Your task to perform on an android device: Open Amazon Image 0: 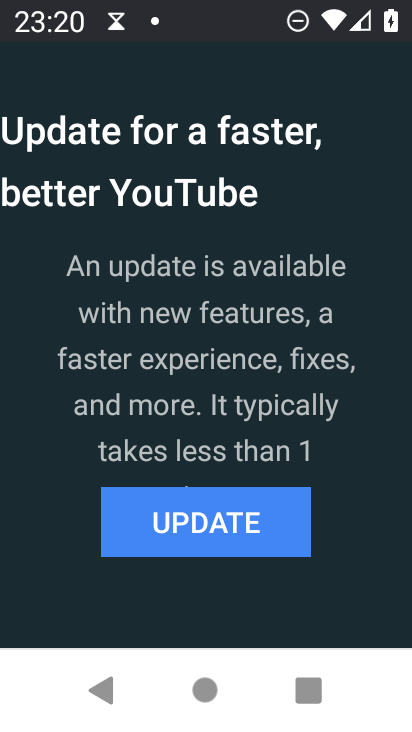
Step 0: press home button
Your task to perform on an android device: Open Amazon Image 1: 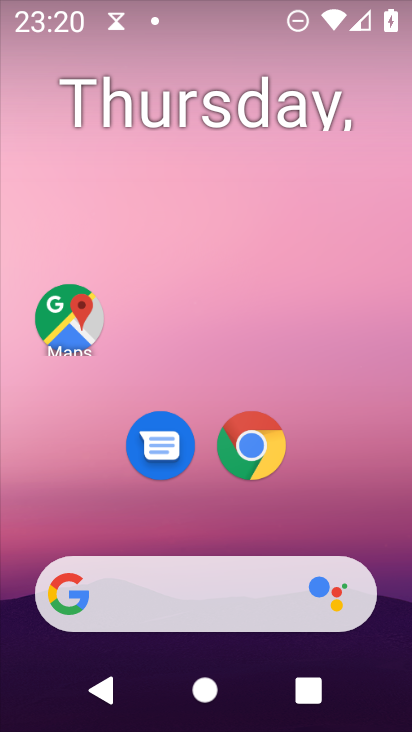
Step 1: click (246, 446)
Your task to perform on an android device: Open Amazon Image 2: 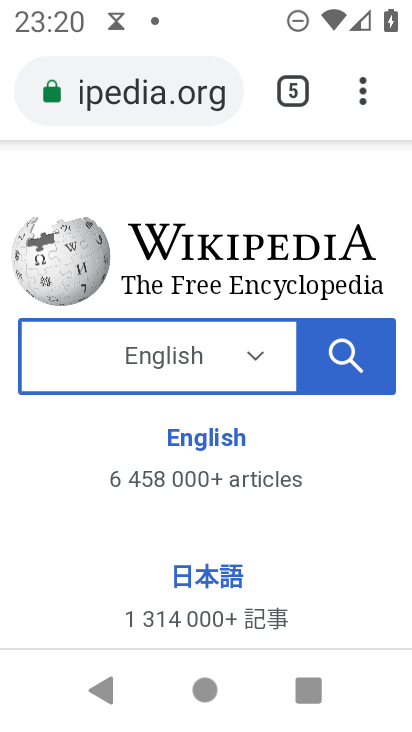
Step 2: click (362, 98)
Your task to perform on an android device: Open Amazon Image 3: 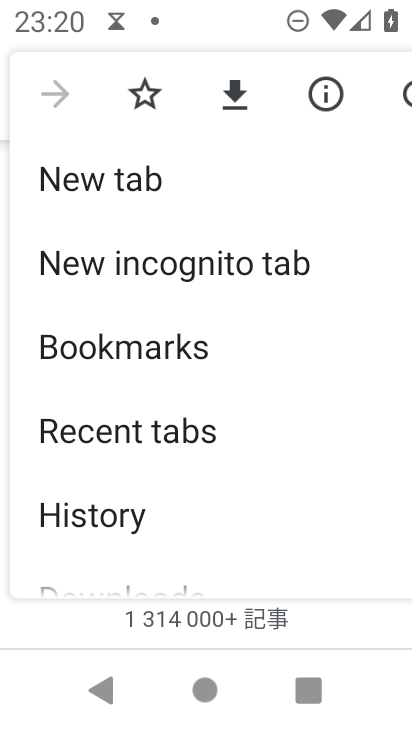
Step 3: click (75, 170)
Your task to perform on an android device: Open Amazon Image 4: 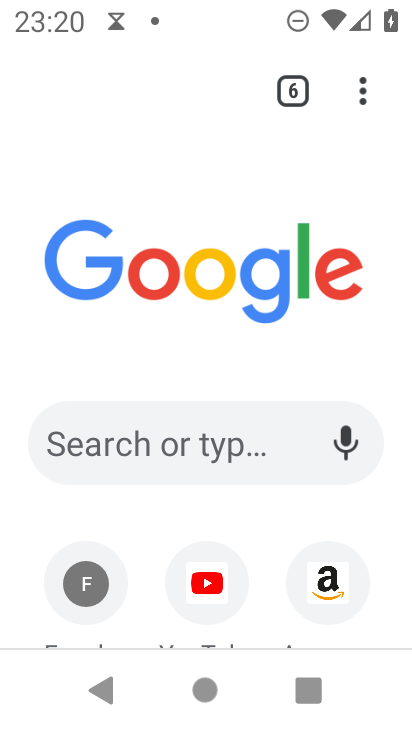
Step 4: click (337, 575)
Your task to perform on an android device: Open Amazon Image 5: 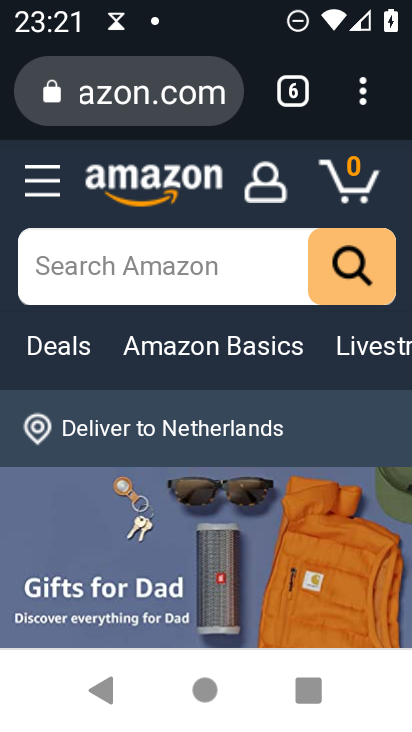
Step 5: task complete